Your task to perform on an android device: Open Google Chrome Image 0: 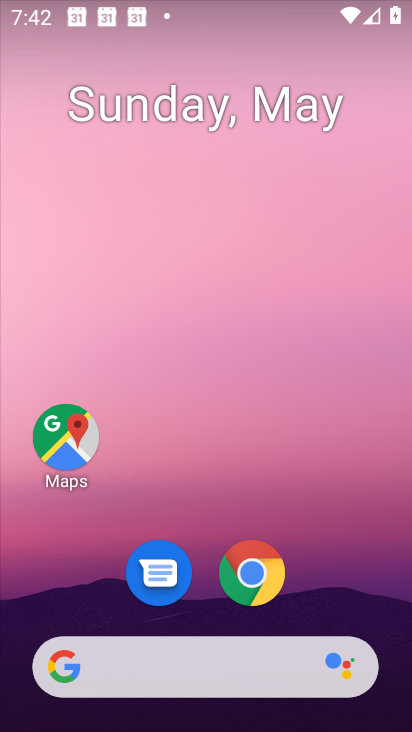
Step 0: click (210, 671)
Your task to perform on an android device: Open Google Chrome Image 1: 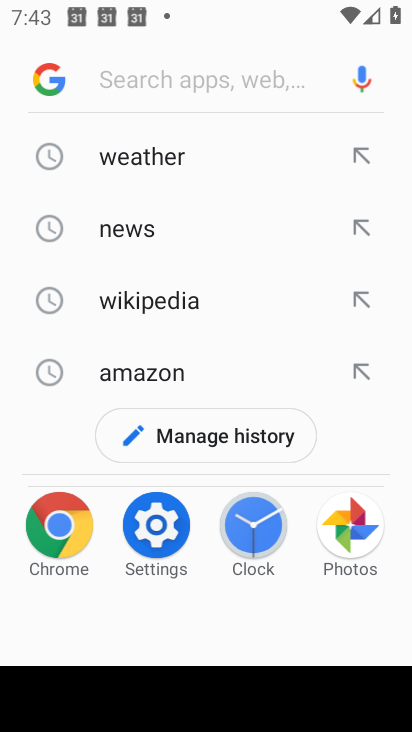
Step 1: click (55, 525)
Your task to perform on an android device: Open Google Chrome Image 2: 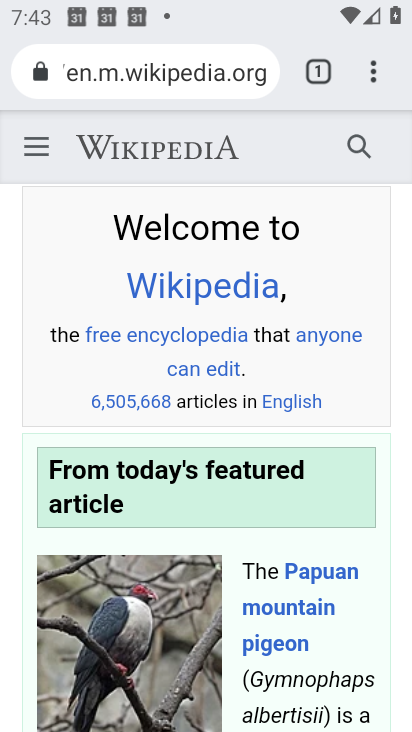
Step 2: task complete